Your task to perform on an android device: find snoozed emails in the gmail app Image 0: 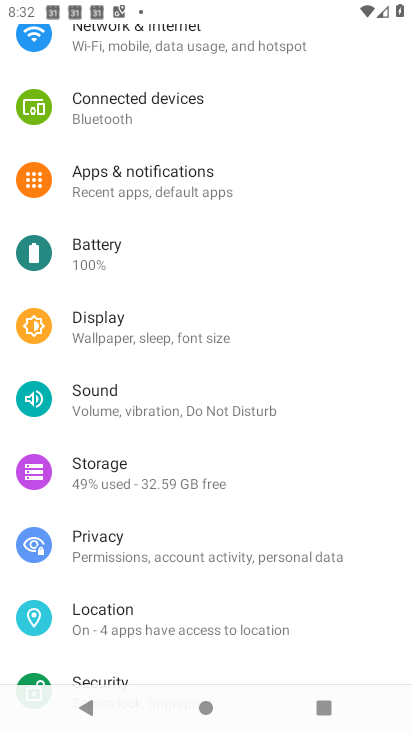
Step 0: press home button
Your task to perform on an android device: find snoozed emails in the gmail app Image 1: 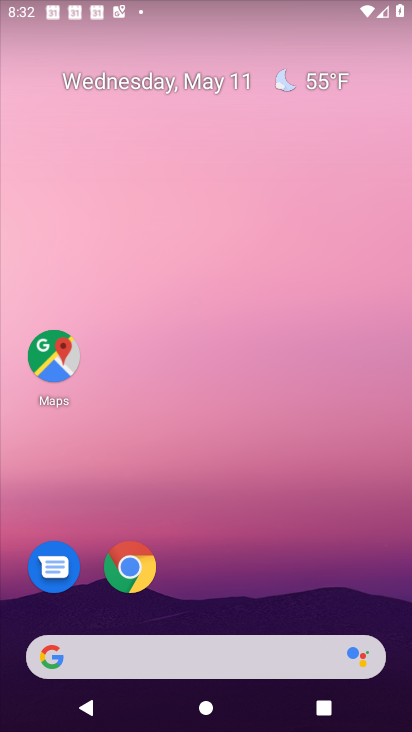
Step 1: drag from (217, 610) to (292, 100)
Your task to perform on an android device: find snoozed emails in the gmail app Image 2: 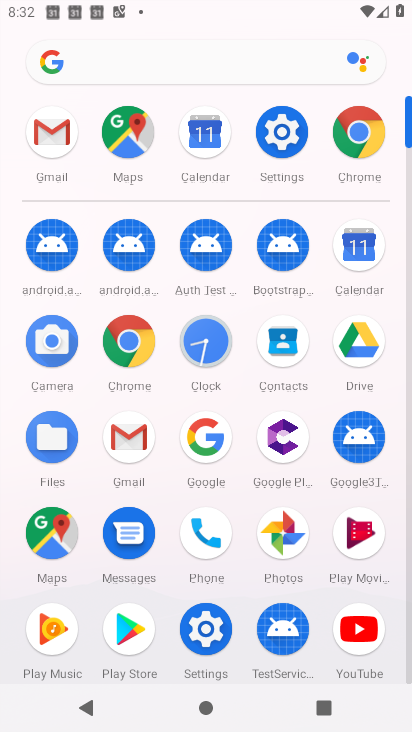
Step 2: click (117, 446)
Your task to perform on an android device: find snoozed emails in the gmail app Image 3: 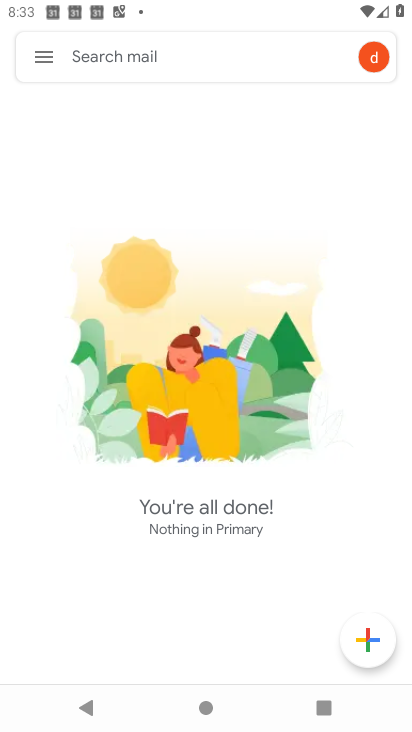
Step 3: click (51, 59)
Your task to perform on an android device: find snoozed emails in the gmail app Image 4: 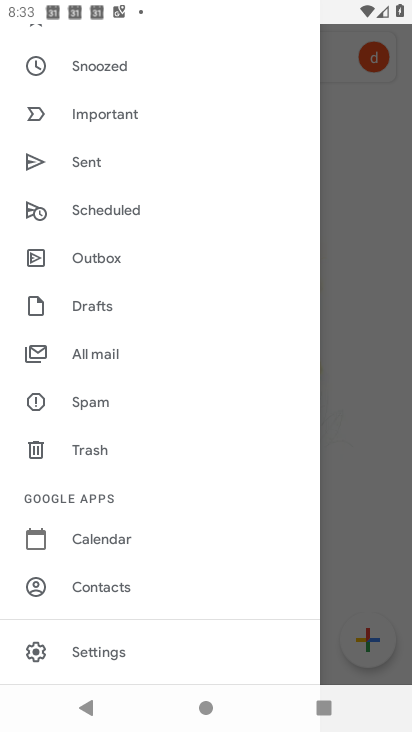
Step 4: click (117, 68)
Your task to perform on an android device: find snoozed emails in the gmail app Image 5: 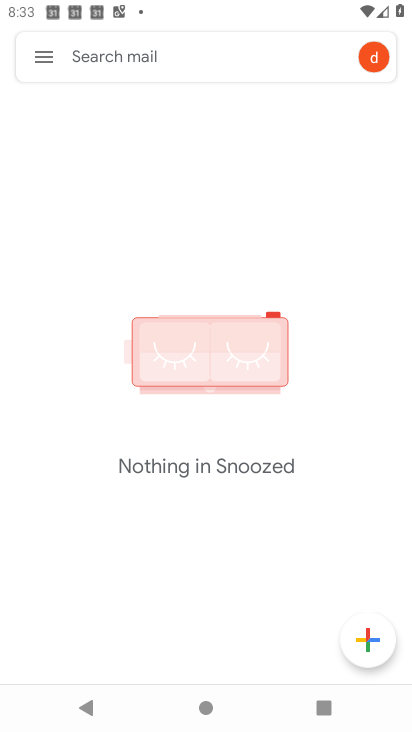
Step 5: task complete